Your task to perform on an android device: move an email to a new category in the gmail app Image 0: 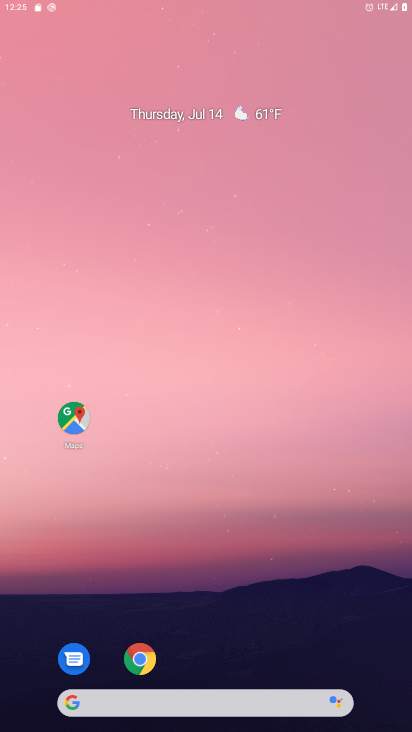
Step 0: press home button
Your task to perform on an android device: move an email to a new category in the gmail app Image 1: 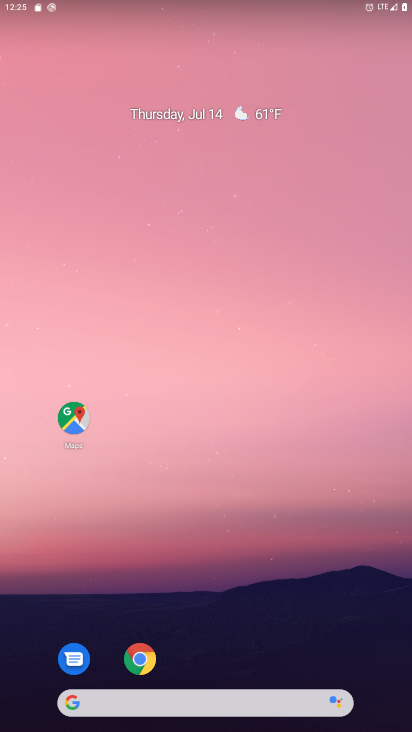
Step 1: drag from (226, 670) to (231, 22)
Your task to perform on an android device: move an email to a new category in the gmail app Image 2: 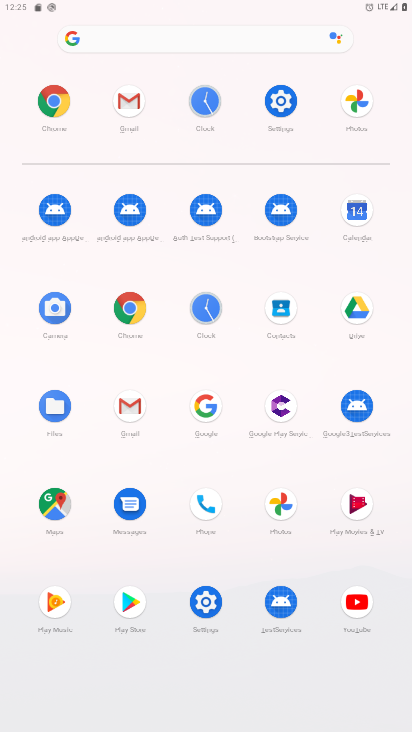
Step 2: click (128, 100)
Your task to perform on an android device: move an email to a new category in the gmail app Image 3: 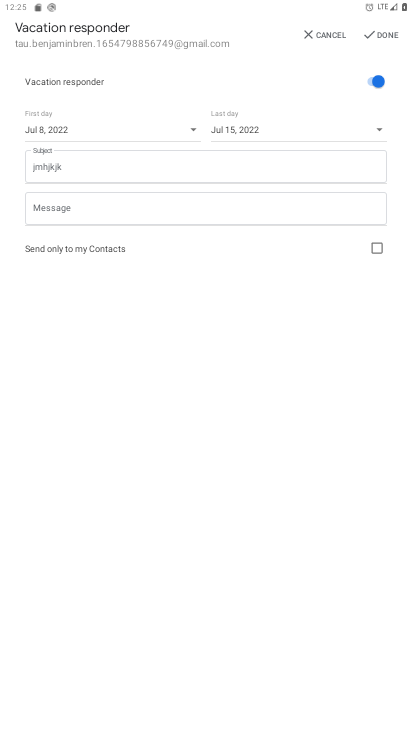
Step 3: press back button
Your task to perform on an android device: move an email to a new category in the gmail app Image 4: 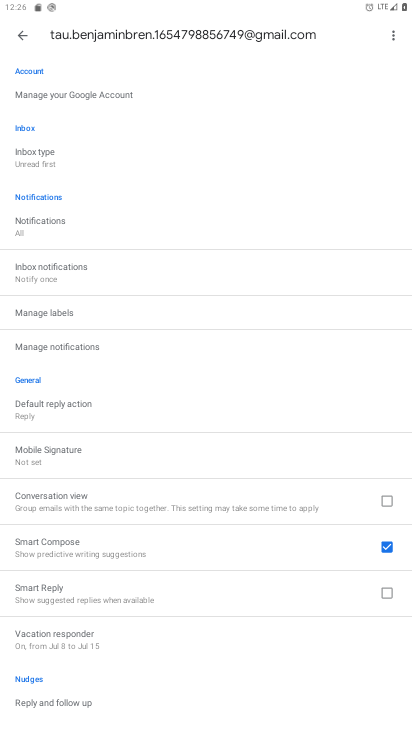
Step 4: click (21, 36)
Your task to perform on an android device: move an email to a new category in the gmail app Image 5: 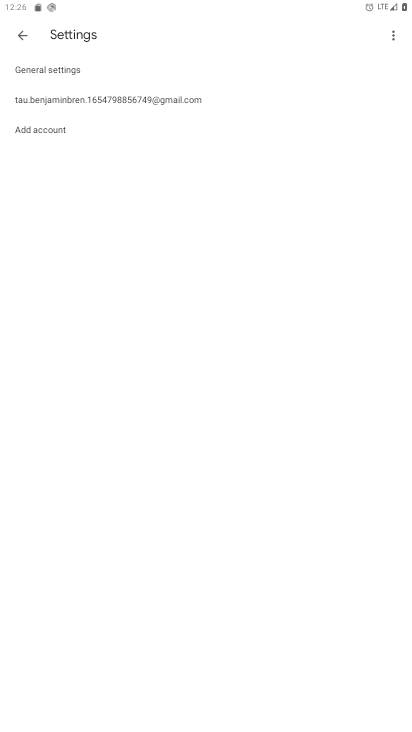
Step 5: click (22, 27)
Your task to perform on an android device: move an email to a new category in the gmail app Image 6: 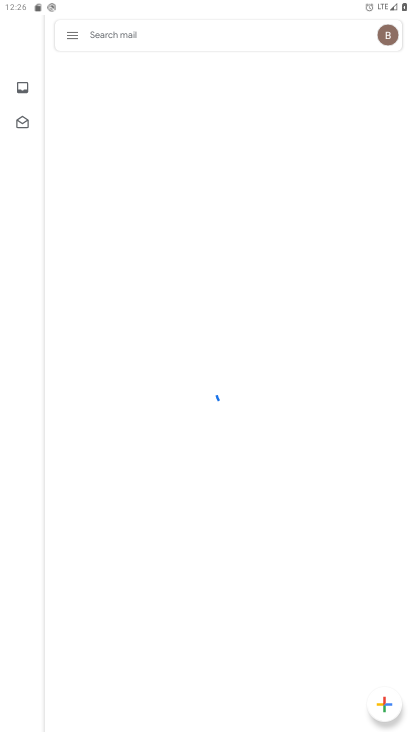
Step 6: task complete